Your task to perform on an android device: Open Google Chrome and click the shortcut for Amazon.com Image 0: 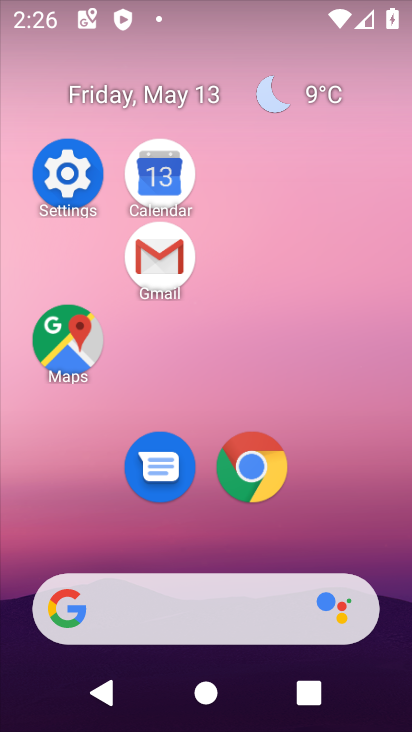
Step 0: click (265, 483)
Your task to perform on an android device: Open Google Chrome and click the shortcut for Amazon.com Image 1: 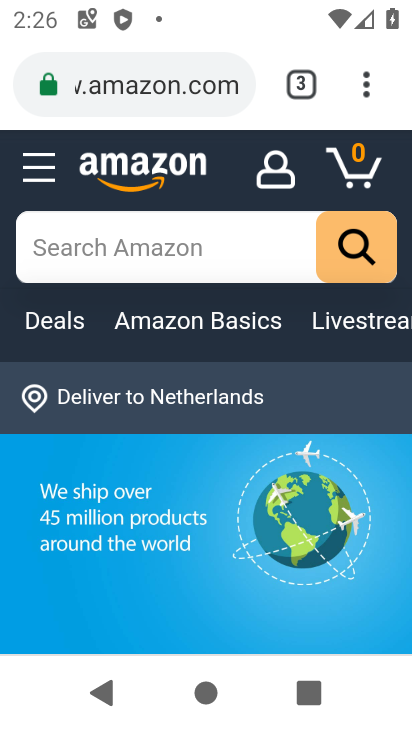
Step 1: click (365, 94)
Your task to perform on an android device: Open Google Chrome and click the shortcut for Amazon.com Image 2: 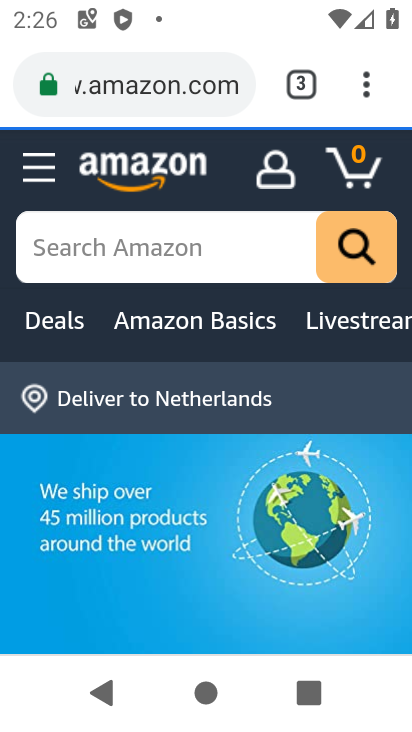
Step 2: click (363, 74)
Your task to perform on an android device: Open Google Chrome and click the shortcut for Amazon.com Image 3: 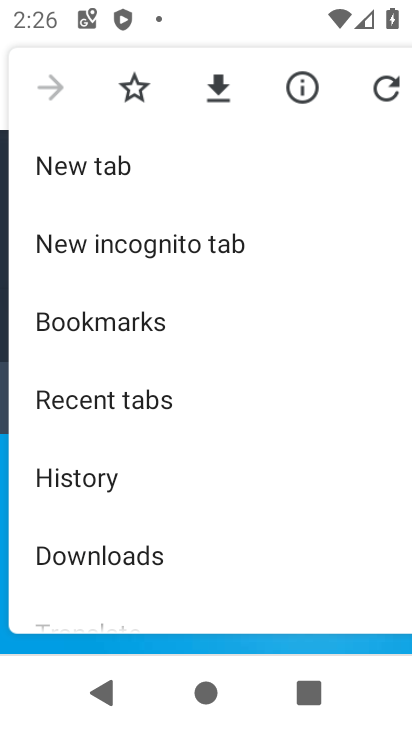
Step 3: drag from (237, 422) to (292, 97)
Your task to perform on an android device: Open Google Chrome and click the shortcut for Amazon.com Image 4: 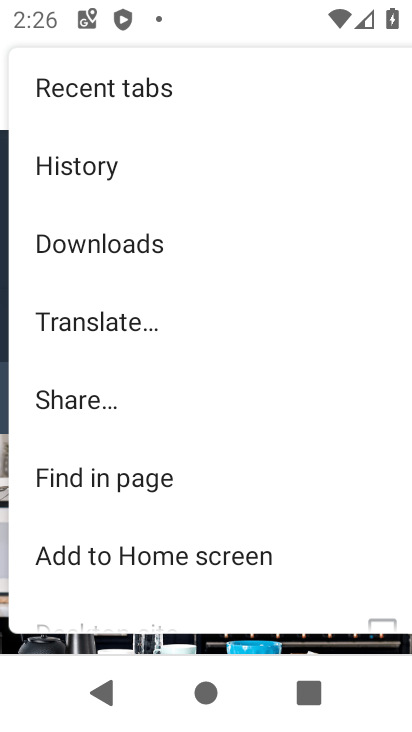
Step 4: click (203, 539)
Your task to perform on an android device: Open Google Chrome and click the shortcut for Amazon.com Image 5: 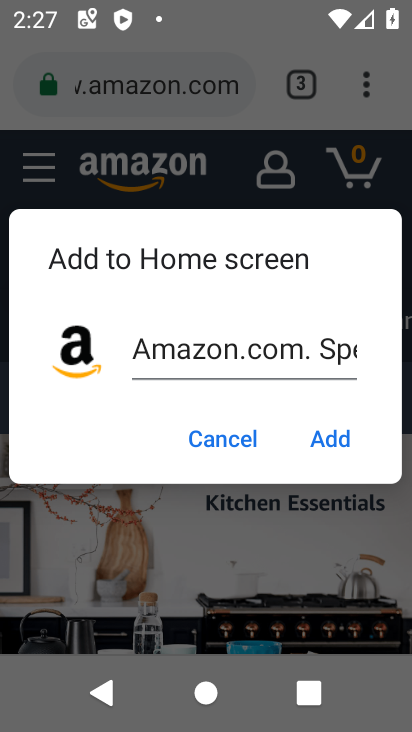
Step 5: click (338, 433)
Your task to perform on an android device: Open Google Chrome and click the shortcut for Amazon.com Image 6: 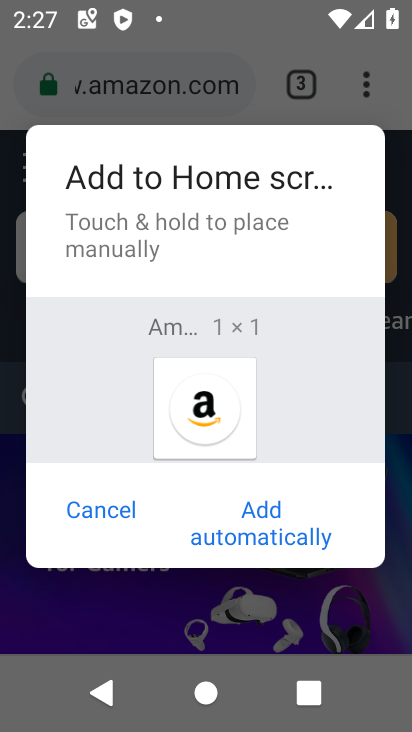
Step 6: click (256, 552)
Your task to perform on an android device: Open Google Chrome and click the shortcut for Amazon.com Image 7: 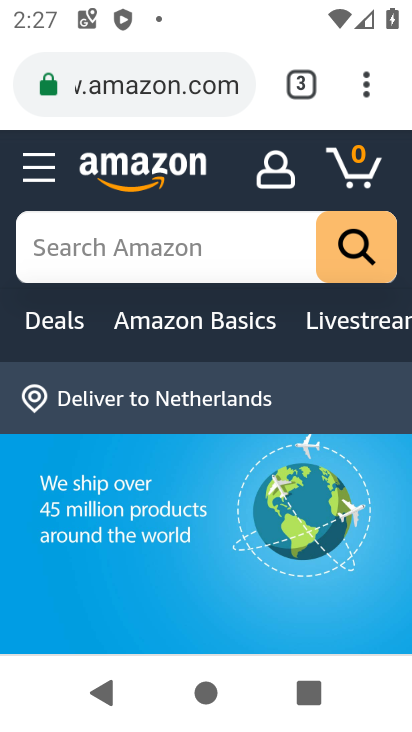
Step 7: task complete